Your task to perform on an android device: find snoozed emails in the gmail app Image 0: 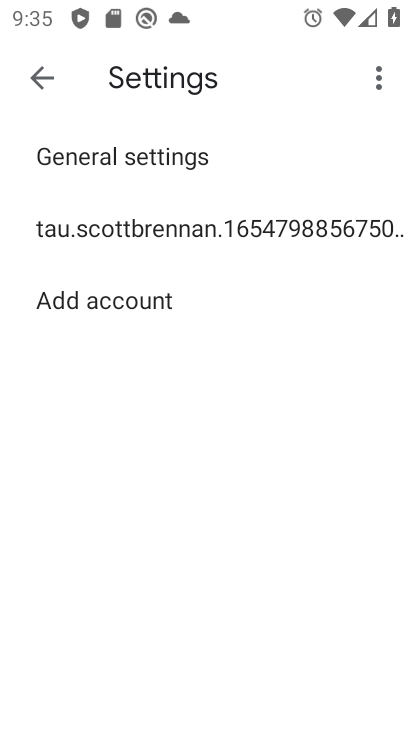
Step 0: press home button
Your task to perform on an android device: find snoozed emails in the gmail app Image 1: 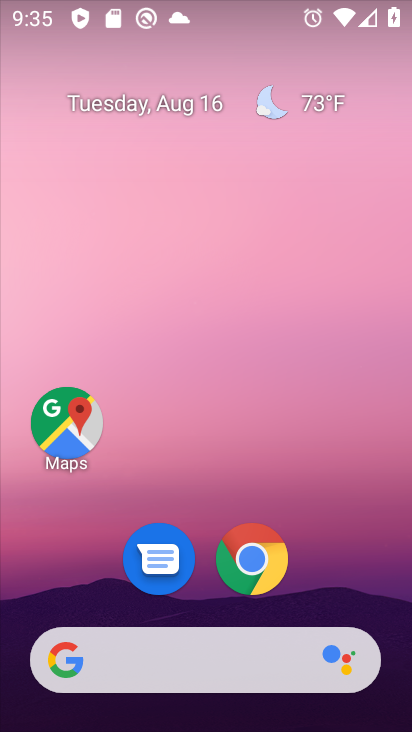
Step 1: drag from (146, 675) to (180, 62)
Your task to perform on an android device: find snoozed emails in the gmail app Image 2: 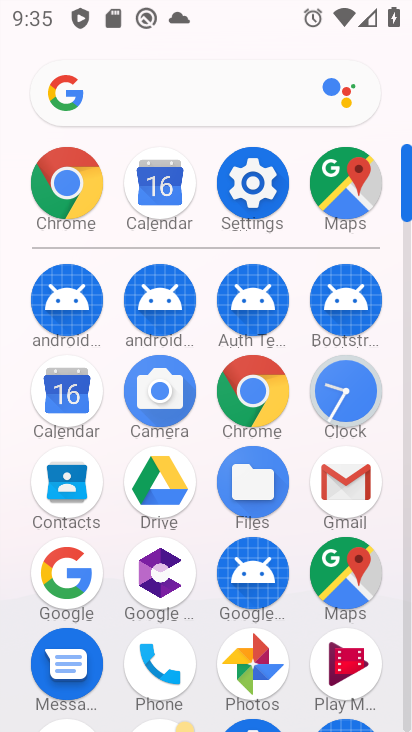
Step 2: click (345, 480)
Your task to perform on an android device: find snoozed emails in the gmail app Image 3: 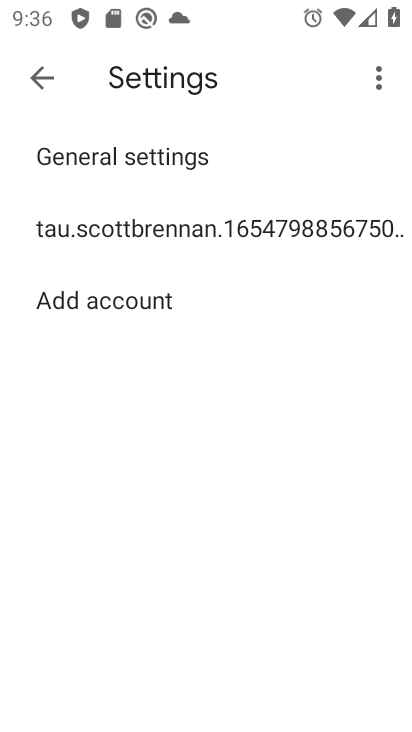
Step 3: press back button
Your task to perform on an android device: find snoozed emails in the gmail app Image 4: 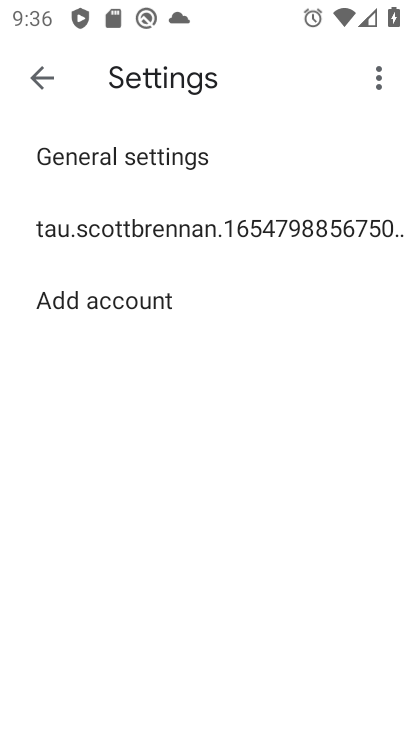
Step 4: press back button
Your task to perform on an android device: find snoozed emails in the gmail app Image 5: 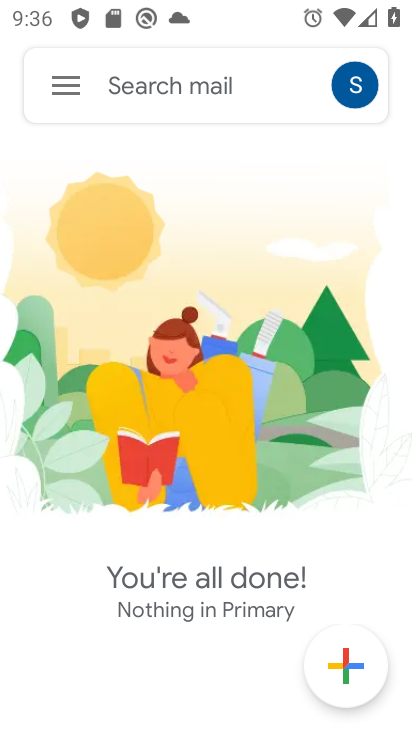
Step 5: click (73, 93)
Your task to perform on an android device: find snoozed emails in the gmail app Image 6: 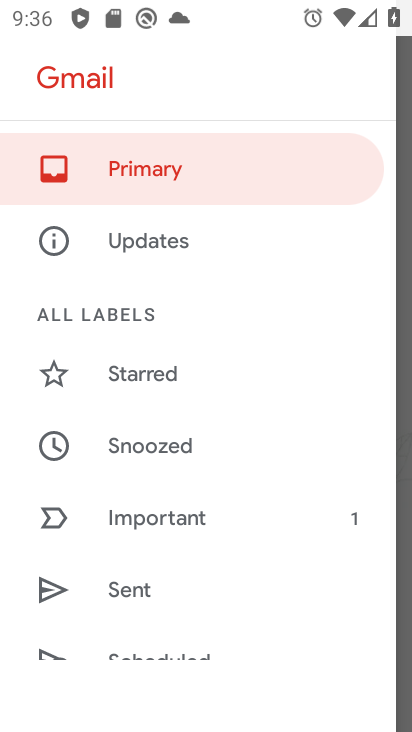
Step 6: drag from (160, 559) to (249, 366)
Your task to perform on an android device: find snoozed emails in the gmail app Image 7: 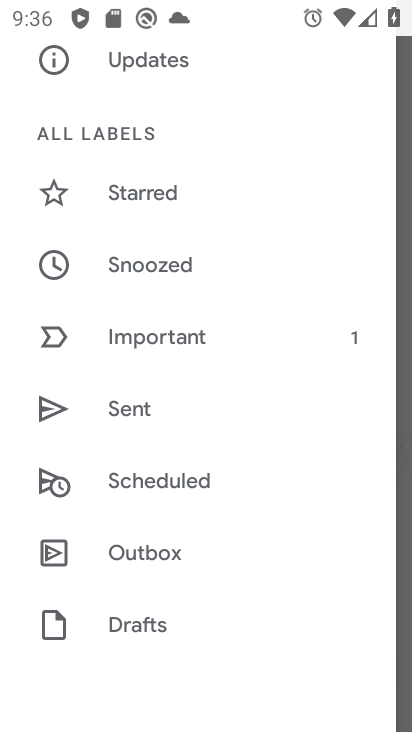
Step 7: drag from (198, 579) to (265, 444)
Your task to perform on an android device: find snoozed emails in the gmail app Image 8: 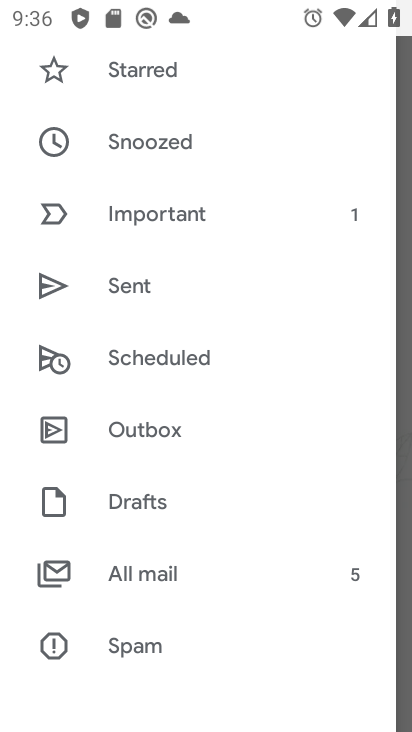
Step 8: click (179, 584)
Your task to perform on an android device: find snoozed emails in the gmail app Image 9: 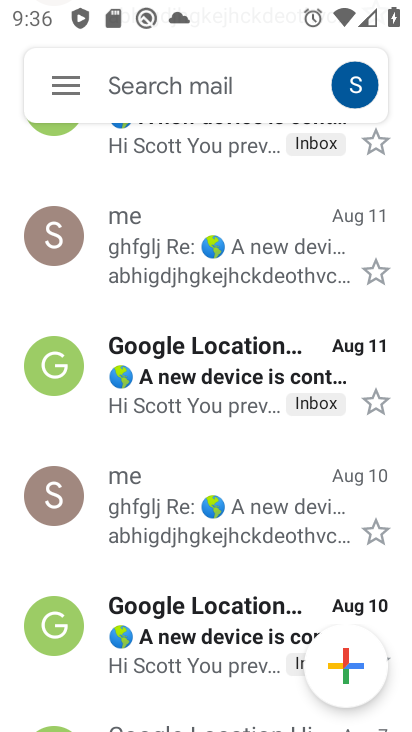
Step 9: task complete